Your task to perform on an android device: When is my next meeting? Image 0: 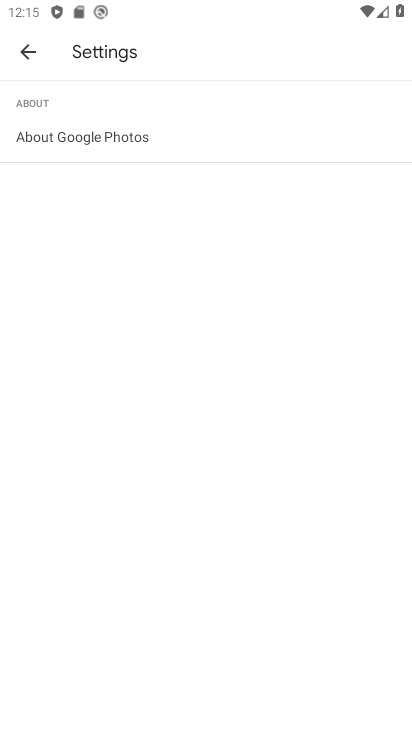
Step 0: press back button
Your task to perform on an android device: When is my next meeting? Image 1: 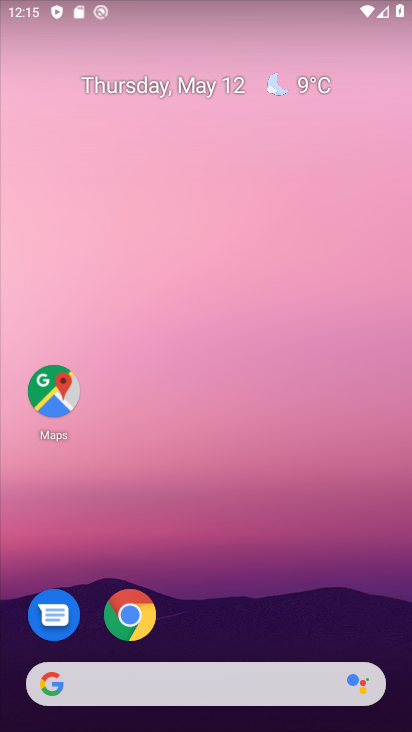
Step 1: drag from (238, 579) to (202, 26)
Your task to perform on an android device: When is my next meeting? Image 2: 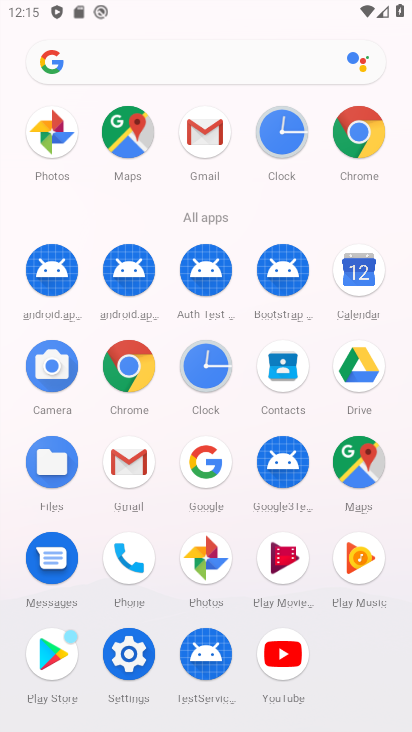
Step 2: click (360, 266)
Your task to perform on an android device: When is my next meeting? Image 3: 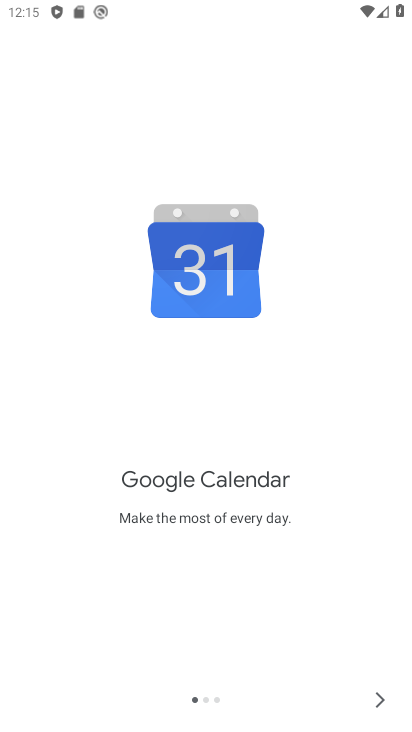
Step 3: click (378, 702)
Your task to perform on an android device: When is my next meeting? Image 4: 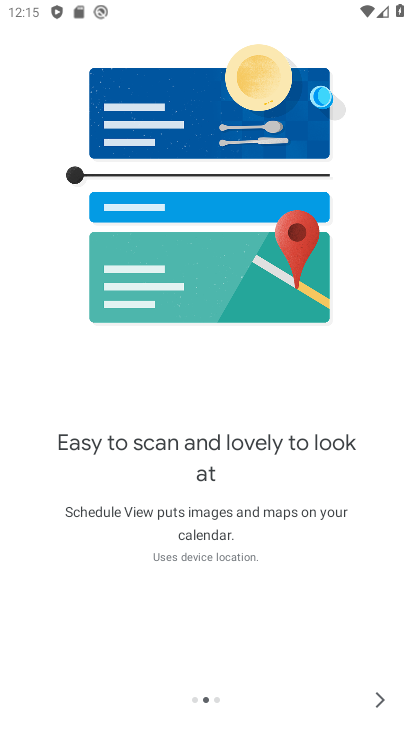
Step 4: click (378, 702)
Your task to perform on an android device: When is my next meeting? Image 5: 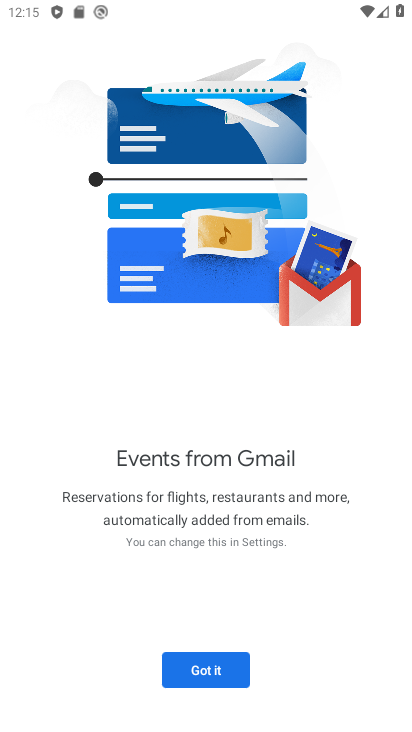
Step 5: click (215, 674)
Your task to perform on an android device: When is my next meeting? Image 6: 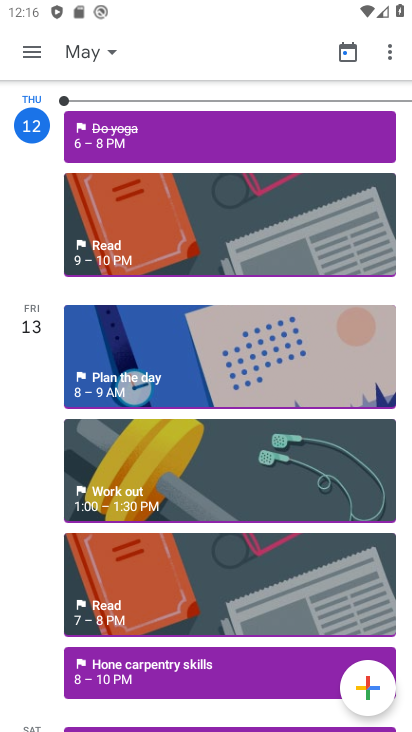
Step 6: click (109, 52)
Your task to perform on an android device: When is my next meeting? Image 7: 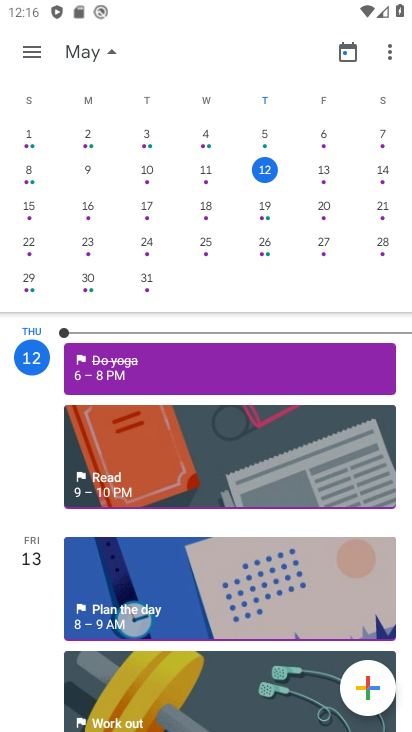
Step 7: click (321, 172)
Your task to perform on an android device: When is my next meeting? Image 8: 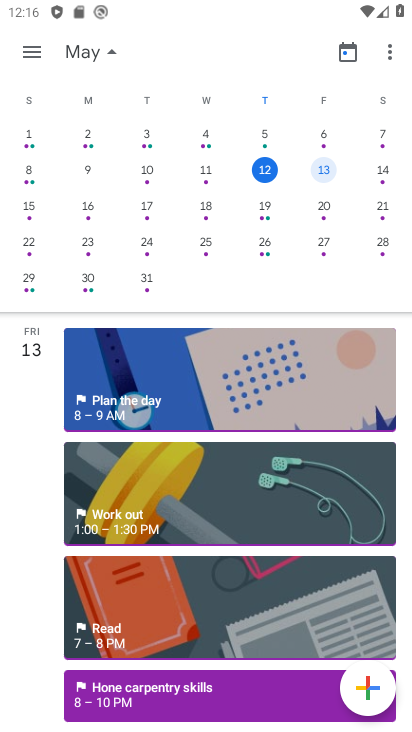
Step 8: task complete